Your task to perform on an android device: toggle airplane mode Image 0: 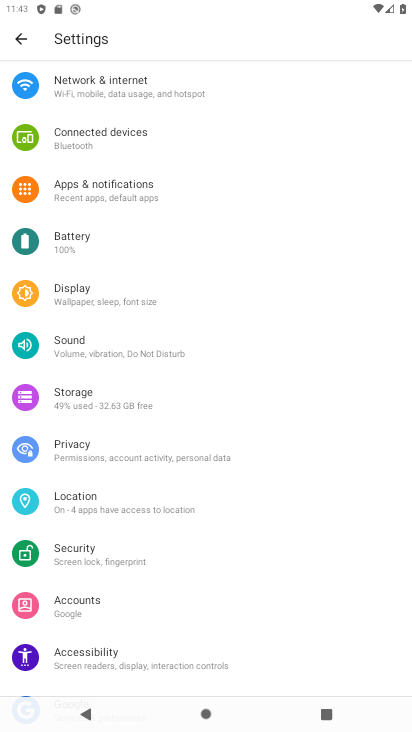
Step 0: drag from (261, 203) to (249, 453)
Your task to perform on an android device: toggle airplane mode Image 1: 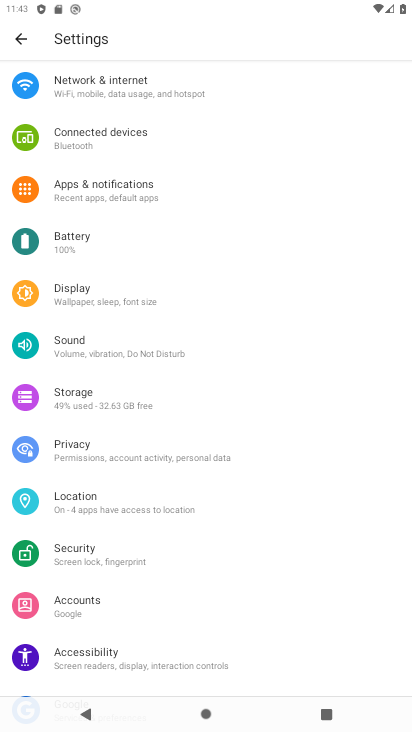
Step 1: click (144, 76)
Your task to perform on an android device: toggle airplane mode Image 2: 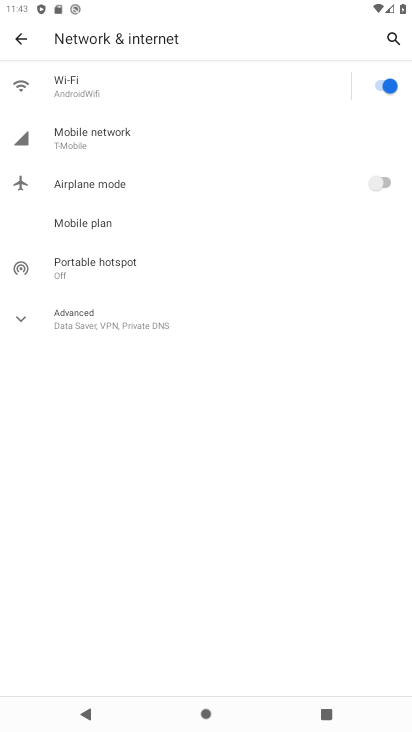
Step 2: click (391, 182)
Your task to perform on an android device: toggle airplane mode Image 3: 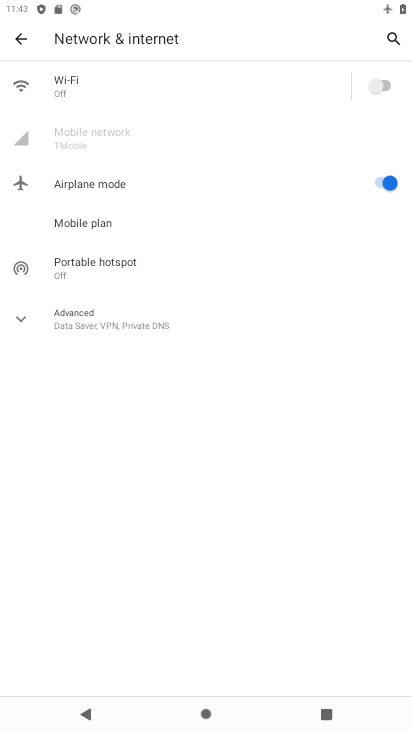
Step 3: task complete